Your task to perform on an android device: turn off wifi Image 0: 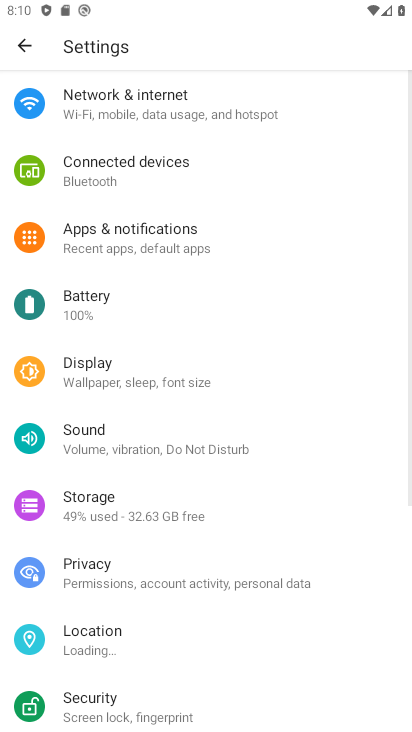
Step 0: press home button
Your task to perform on an android device: turn off wifi Image 1: 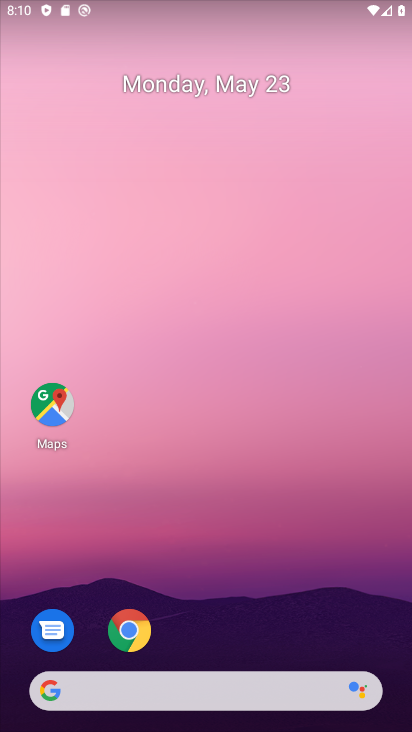
Step 1: drag from (208, 621) to (283, 161)
Your task to perform on an android device: turn off wifi Image 2: 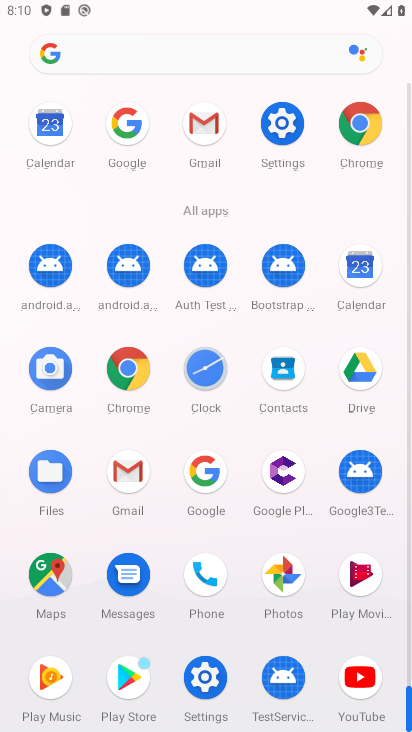
Step 2: click (285, 124)
Your task to perform on an android device: turn off wifi Image 3: 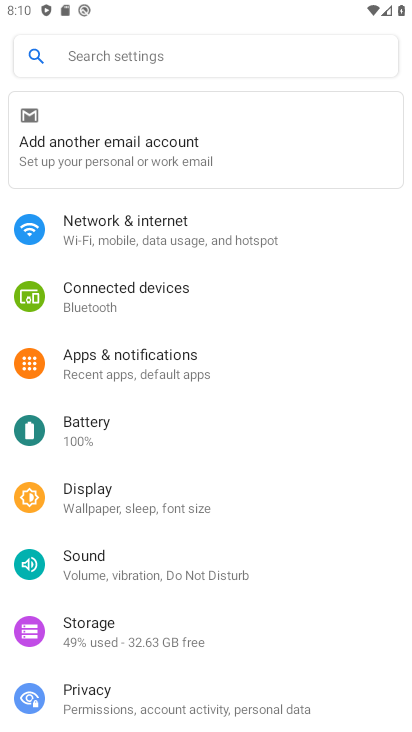
Step 3: click (117, 232)
Your task to perform on an android device: turn off wifi Image 4: 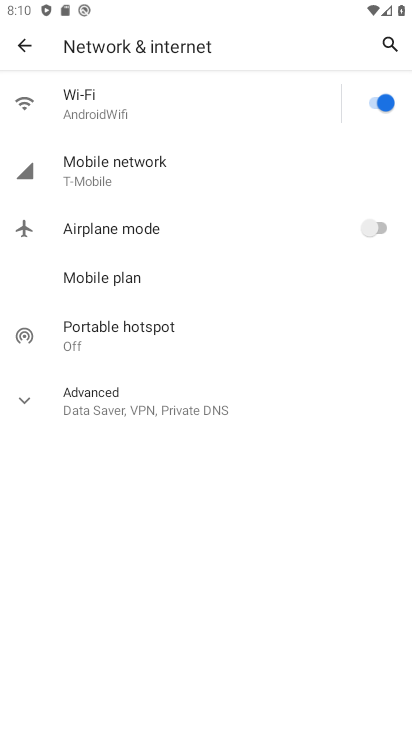
Step 4: task complete